Your task to perform on an android device: Show me popular games on the Play Store Image 0: 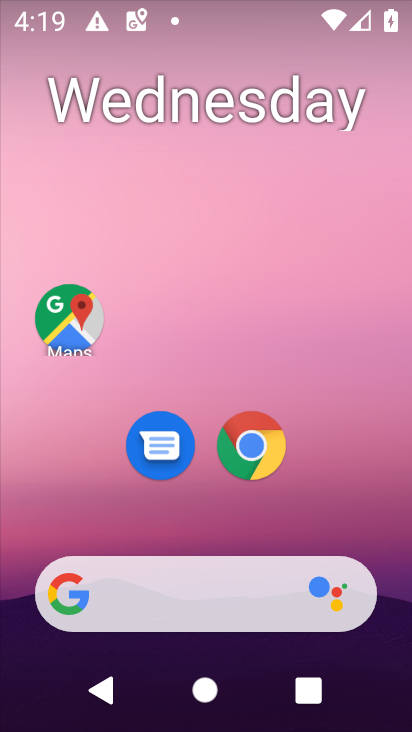
Step 0: drag from (278, 525) to (362, 42)
Your task to perform on an android device: Show me popular games on the Play Store Image 1: 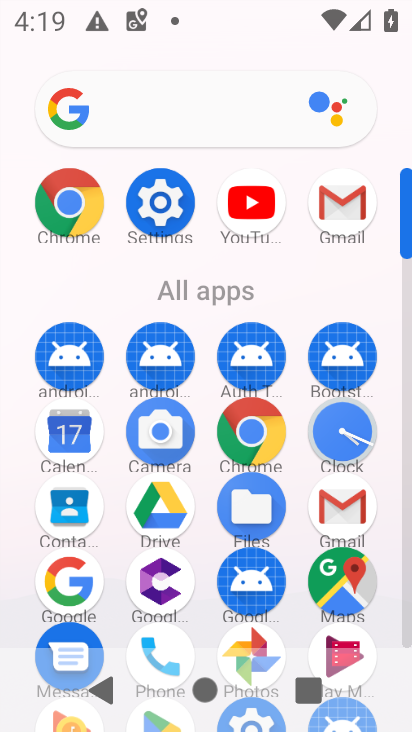
Step 1: drag from (301, 611) to (342, 180)
Your task to perform on an android device: Show me popular games on the Play Store Image 2: 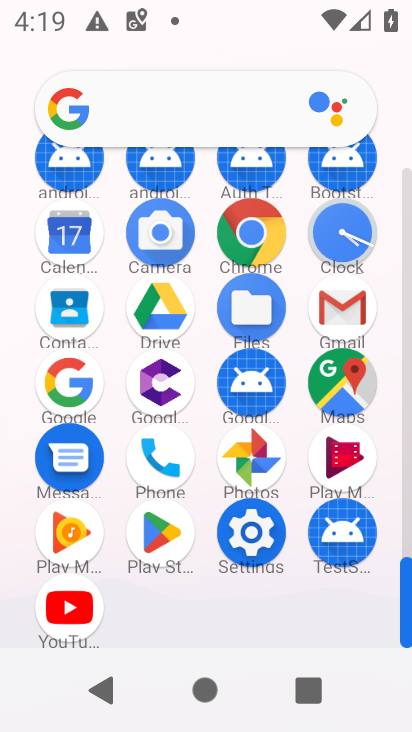
Step 2: click (148, 542)
Your task to perform on an android device: Show me popular games on the Play Store Image 3: 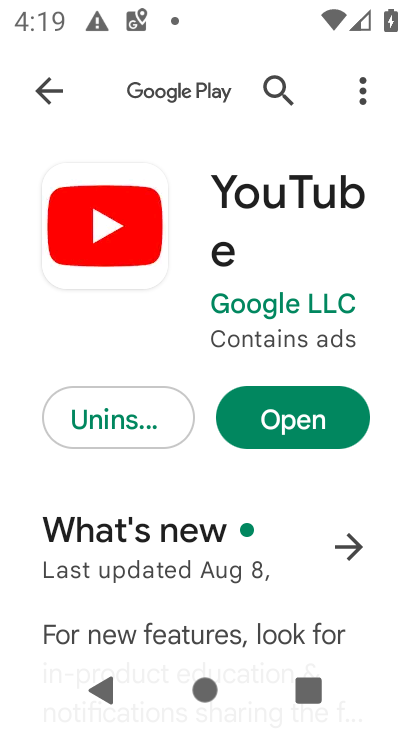
Step 3: click (62, 93)
Your task to perform on an android device: Show me popular games on the Play Store Image 4: 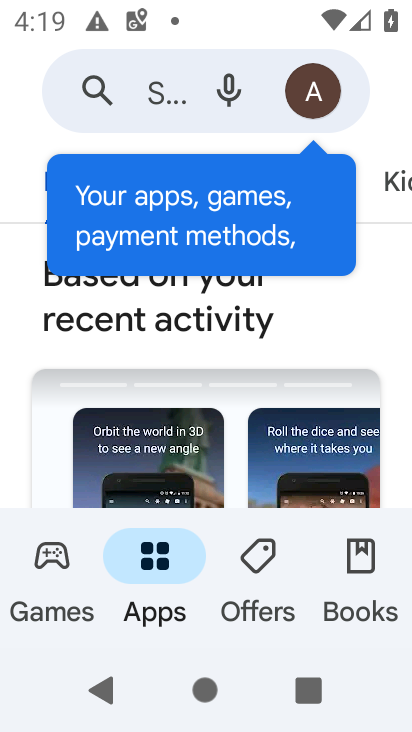
Step 4: click (54, 558)
Your task to perform on an android device: Show me popular games on the Play Store Image 5: 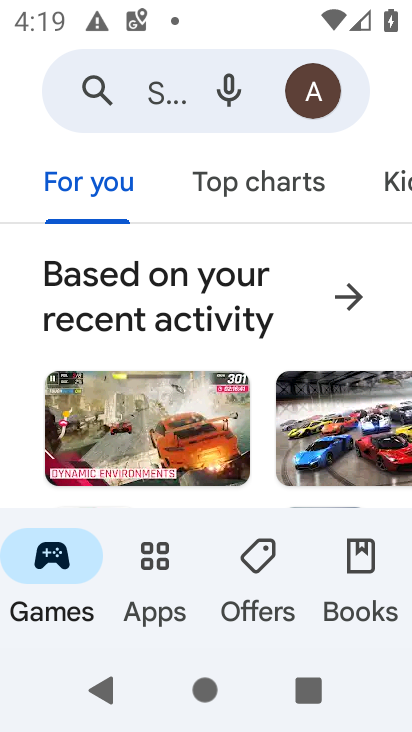
Step 5: task complete